Your task to perform on an android device: turn on data saver in the chrome app Image 0: 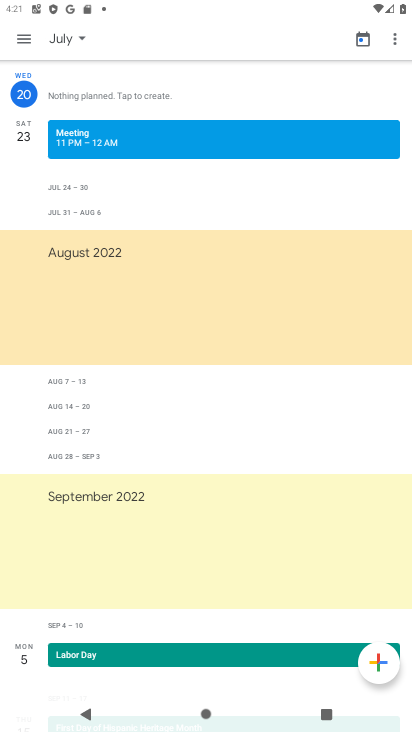
Step 0: press home button
Your task to perform on an android device: turn on data saver in the chrome app Image 1: 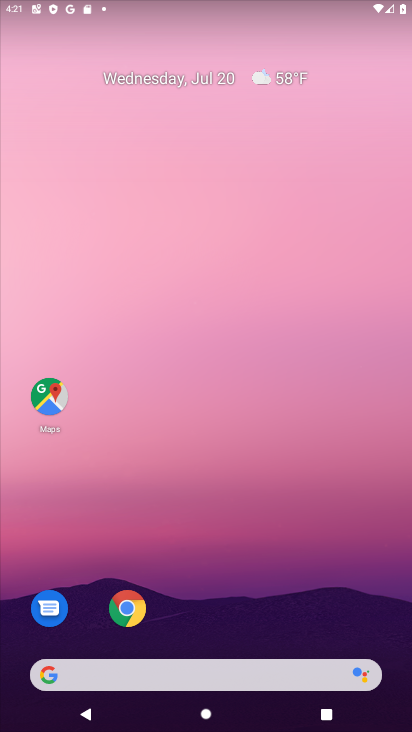
Step 1: click (129, 607)
Your task to perform on an android device: turn on data saver in the chrome app Image 2: 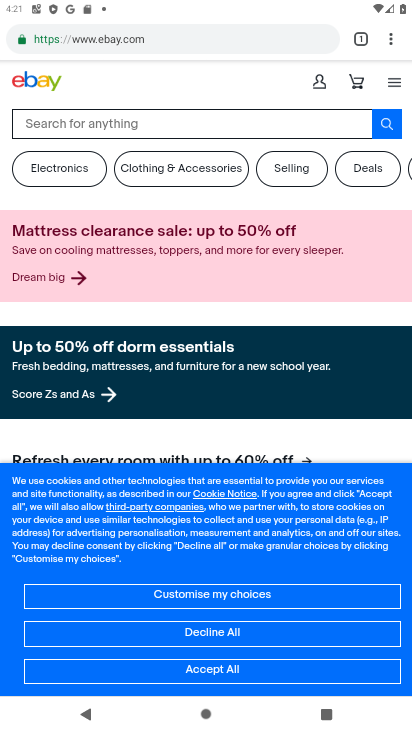
Step 2: click (386, 37)
Your task to perform on an android device: turn on data saver in the chrome app Image 3: 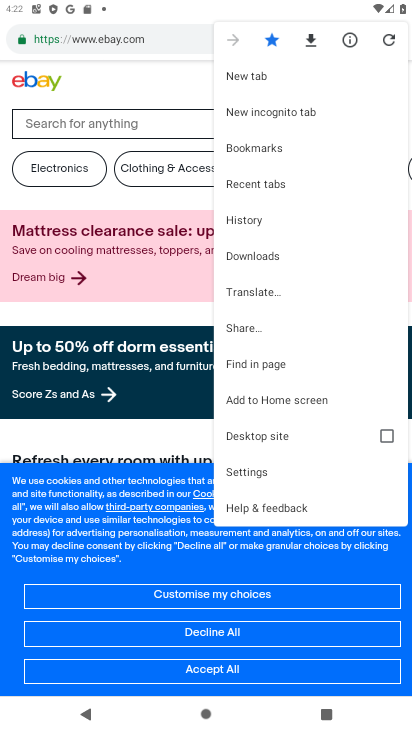
Step 3: click (261, 471)
Your task to perform on an android device: turn on data saver in the chrome app Image 4: 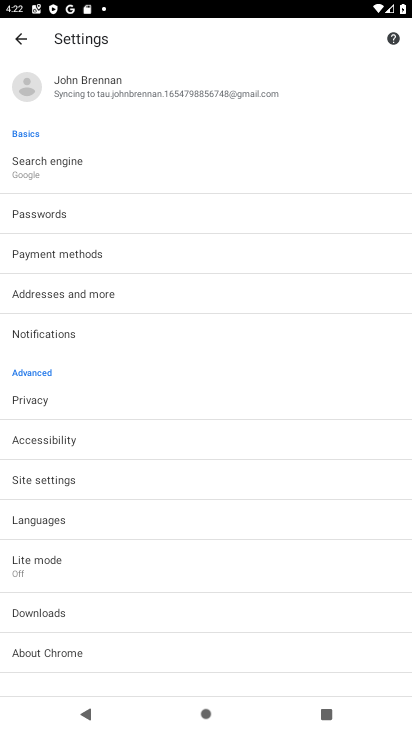
Step 4: click (58, 564)
Your task to perform on an android device: turn on data saver in the chrome app Image 5: 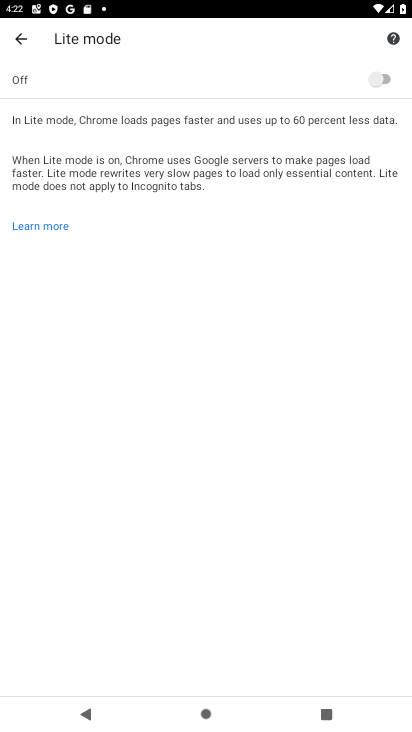
Step 5: click (394, 84)
Your task to perform on an android device: turn on data saver in the chrome app Image 6: 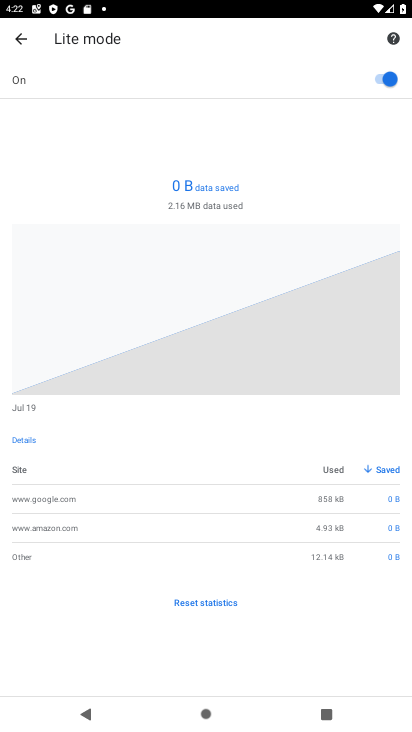
Step 6: task complete